Your task to perform on an android device: What's the weather going to be tomorrow? Image 0: 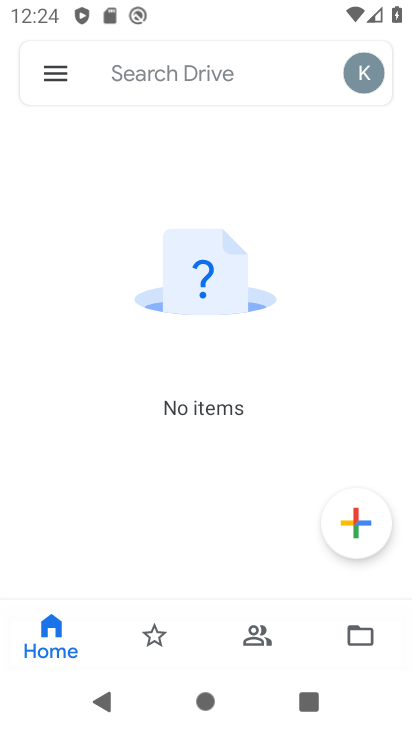
Step 0: press home button
Your task to perform on an android device: What's the weather going to be tomorrow? Image 1: 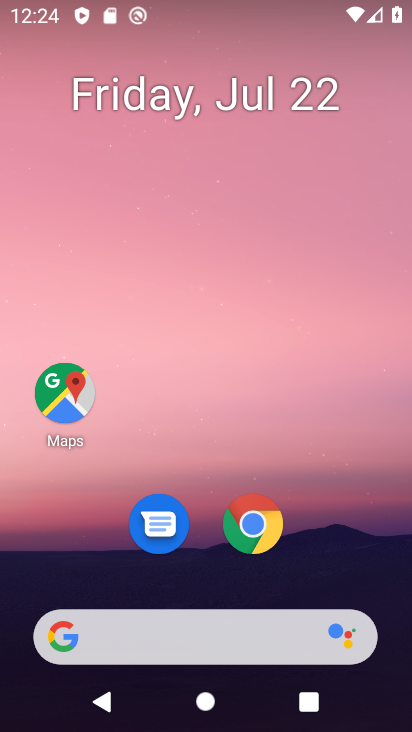
Step 1: click (150, 626)
Your task to perform on an android device: What's the weather going to be tomorrow? Image 2: 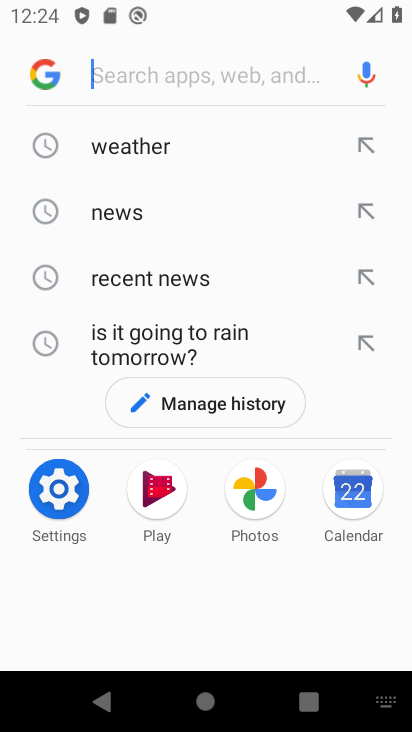
Step 2: click (142, 137)
Your task to perform on an android device: What's the weather going to be tomorrow? Image 3: 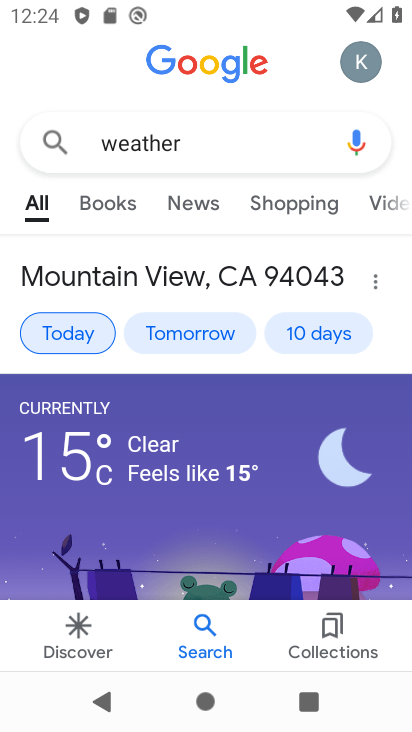
Step 3: click (179, 329)
Your task to perform on an android device: What's the weather going to be tomorrow? Image 4: 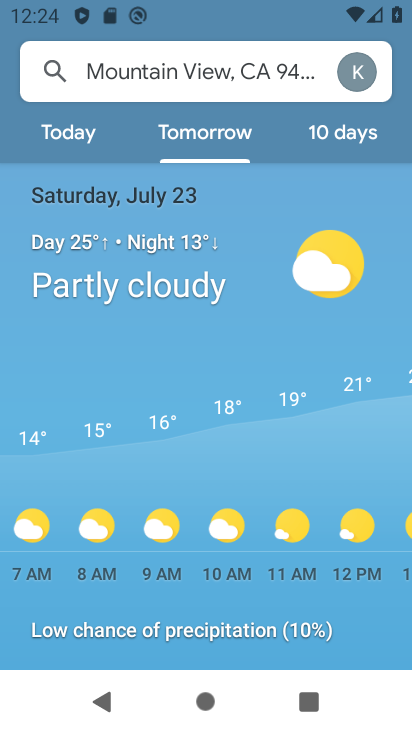
Step 4: task complete